Your task to perform on an android device: change the clock display to analog Image 0: 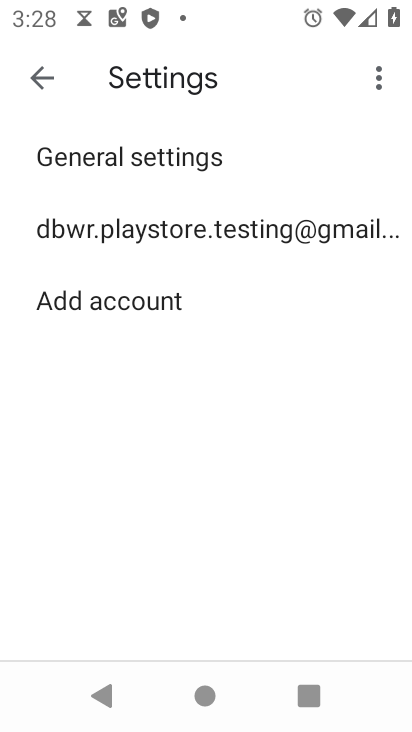
Step 0: press home button
Your task to perform on an android device: change the clock display to analog Image 1: 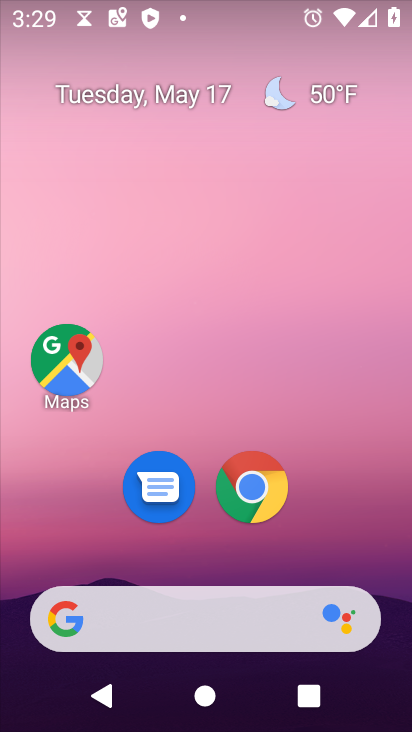
Step 1: drag from (368, 555) to (263, 125)
Your task to perform on an android device: change the clock display to analog Image 2: 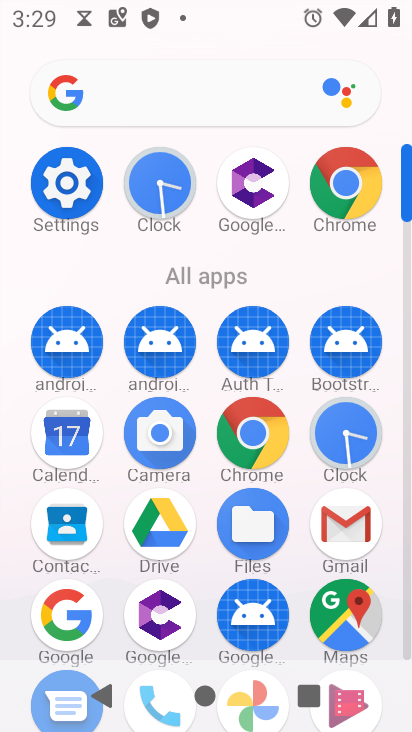
Step 2: click (408, 646)
Your task to perform on an android device: change the clock display to analog Image 3: 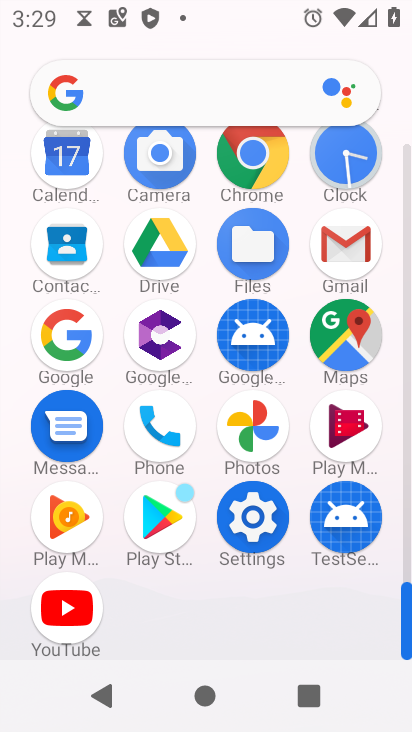
Step 3: click (254, 511)
Your task to perform on an android device: change the clock display to analog Image 4: 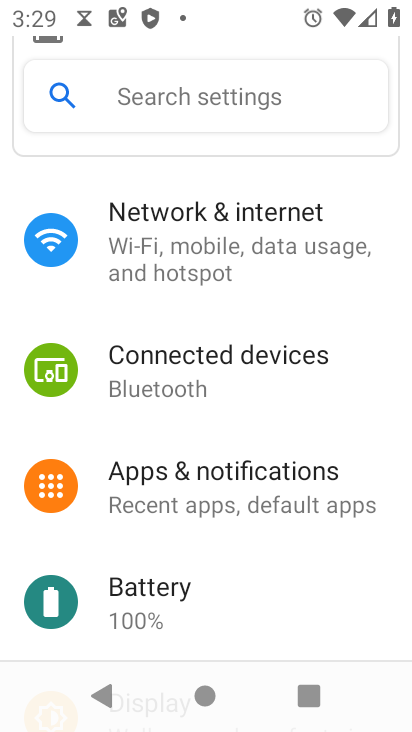
Step 4: press home button
Your task to perform on an android device: change the clock display to analog Image 5: 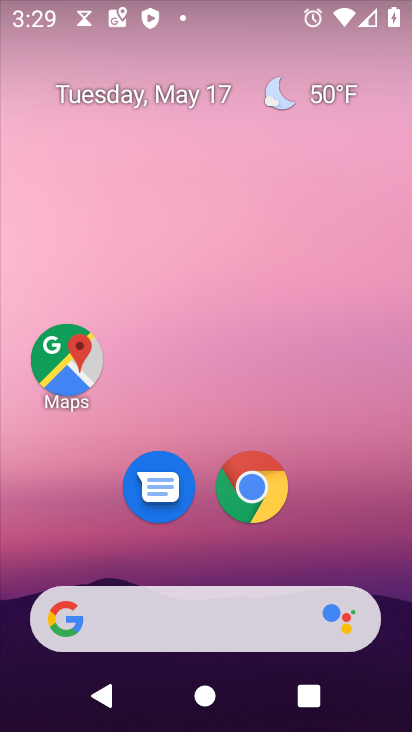
Step 5: drag from (376, 604) to (348, 107)
Your task to perform on an android device: change the clock display to analog Image 6: 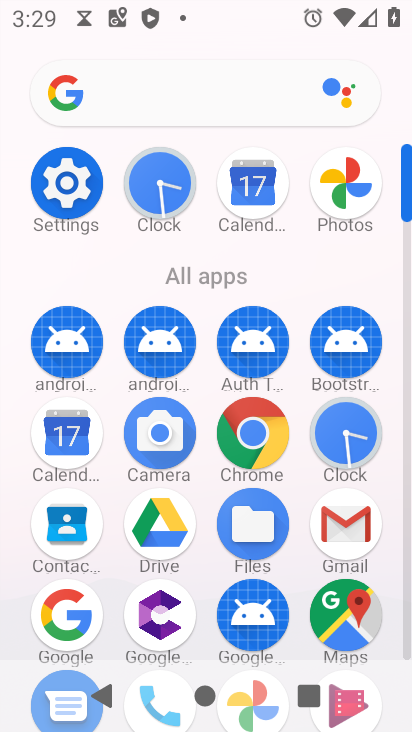
Step 6: click (348, 429)
Your task to perform on an android device: change the clock display to analog Image 7: 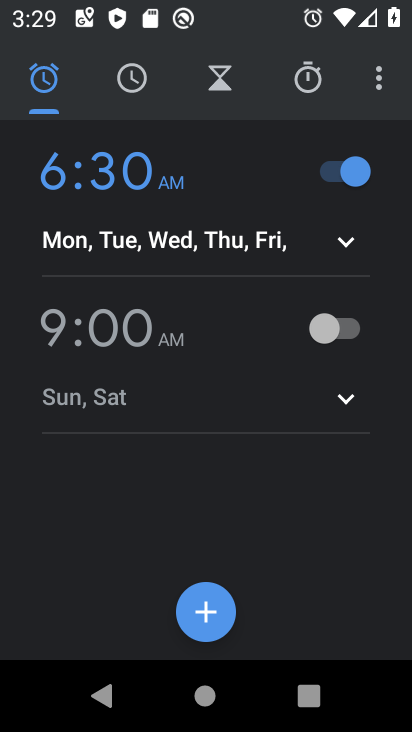
Step 7: click (378, 86)
Your task to perform on an android device: change the clock display to analog Image 8: 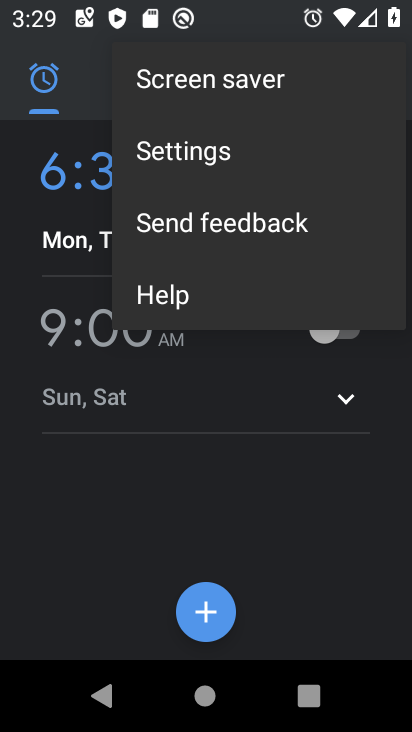
Step 8: click (176, 150)
Your task to perform on an android device: change the clock display to analog Image 9: 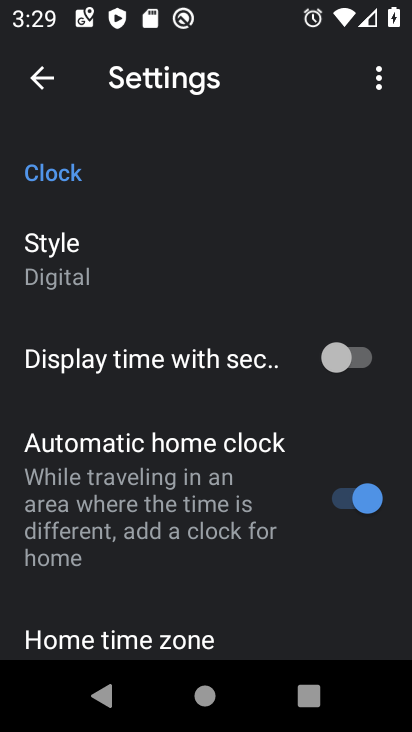
Step 9: click (41, 263)
Your task to perform on an android device: change the clock display to analog Image 10: 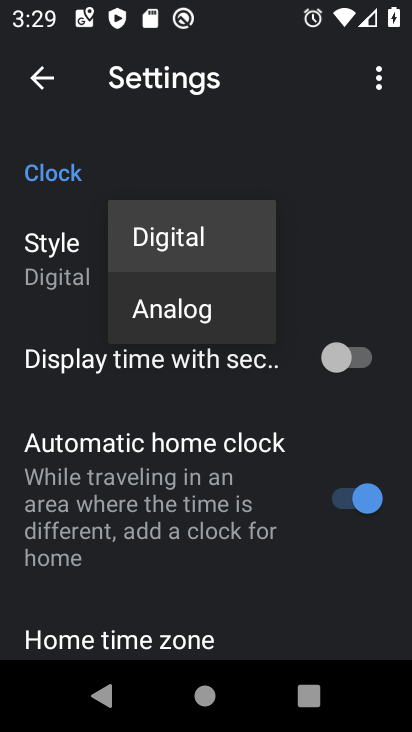
Step 10: click (181, 302)
Your task to perform on an android device: change the clock display to analog Image 11: 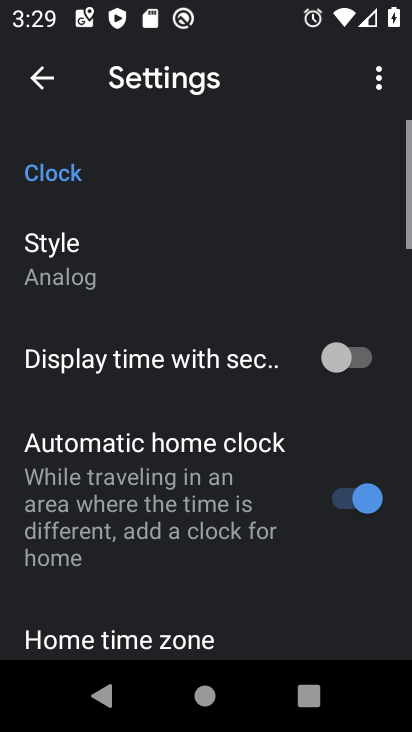
Step 11: task complete